Your task to perform on an android device: refresh tabs in the chrome app Image 0: 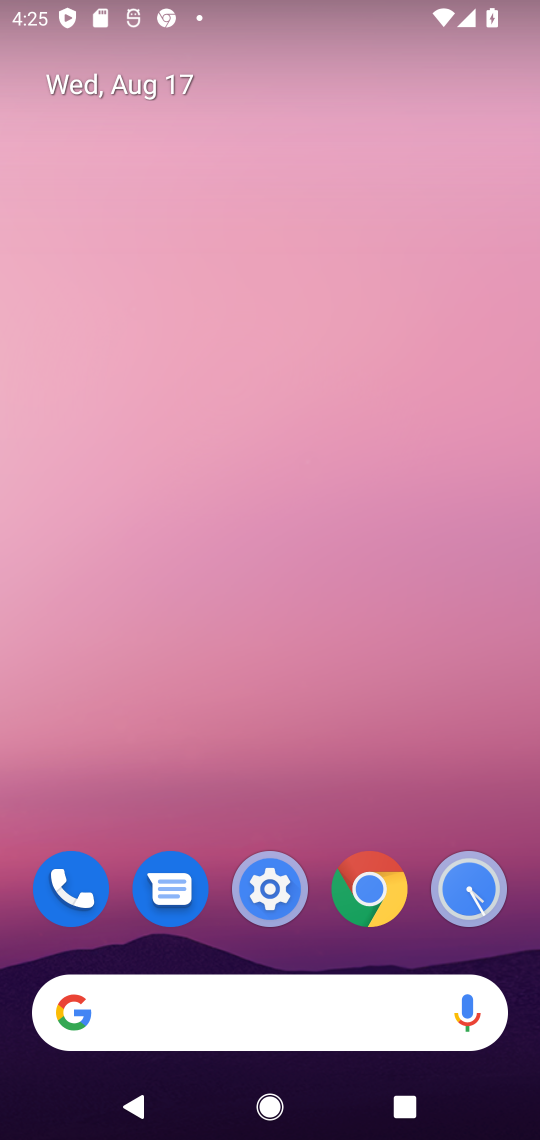
Step 0: click (376, 893)
Your task to perform on an android device: refresh tabs in the chrome app Image 1: 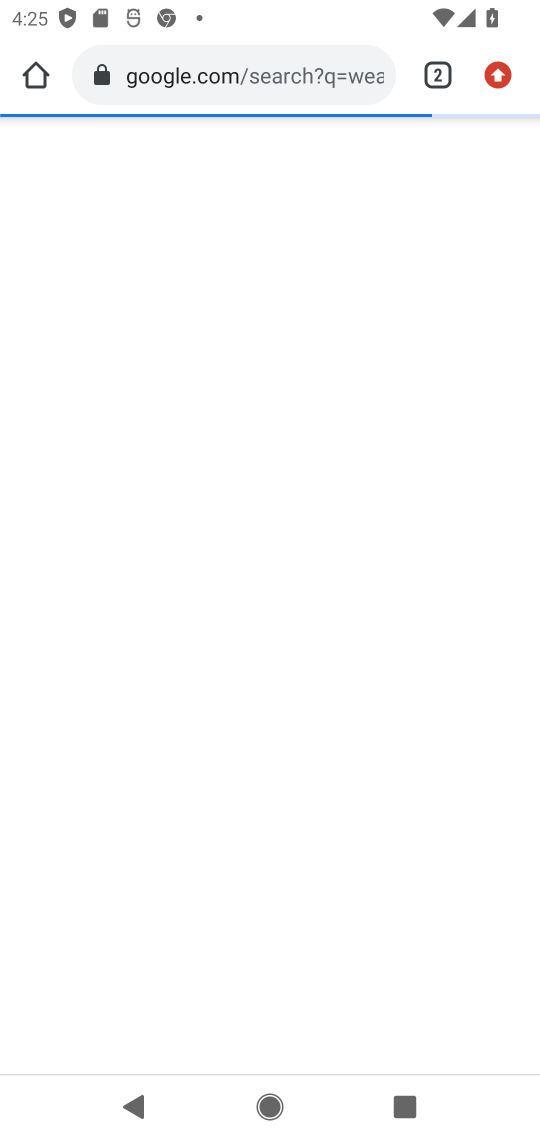
Step 1: click (490, 74)
Your task to perform on an android device: refresh tabs in the chrome app Image 2: 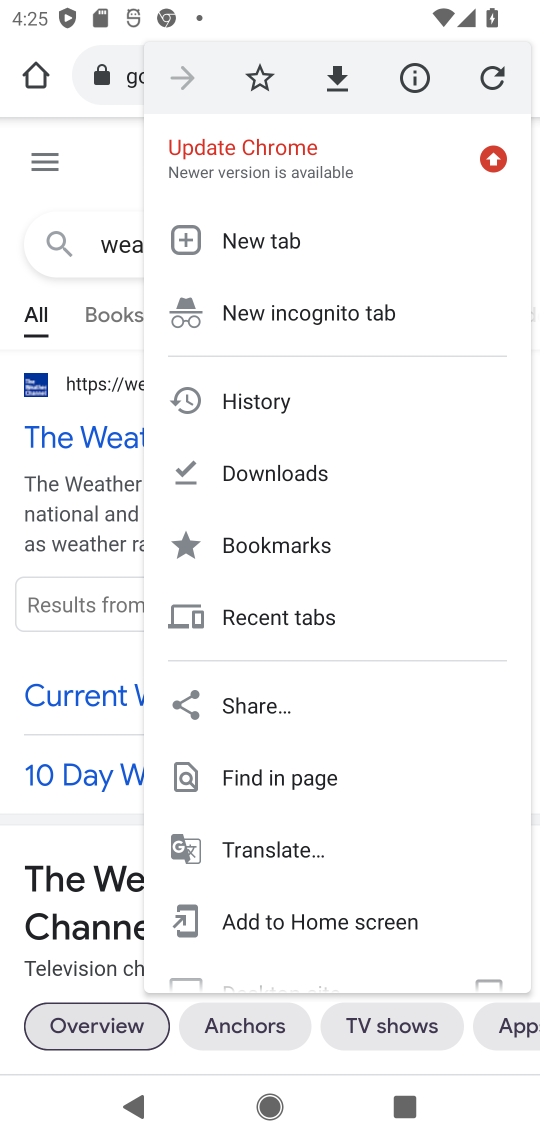
Step 2: click (489, 70)
Your task to perform on an android device: refresh tabs in the chrome app Image 3: 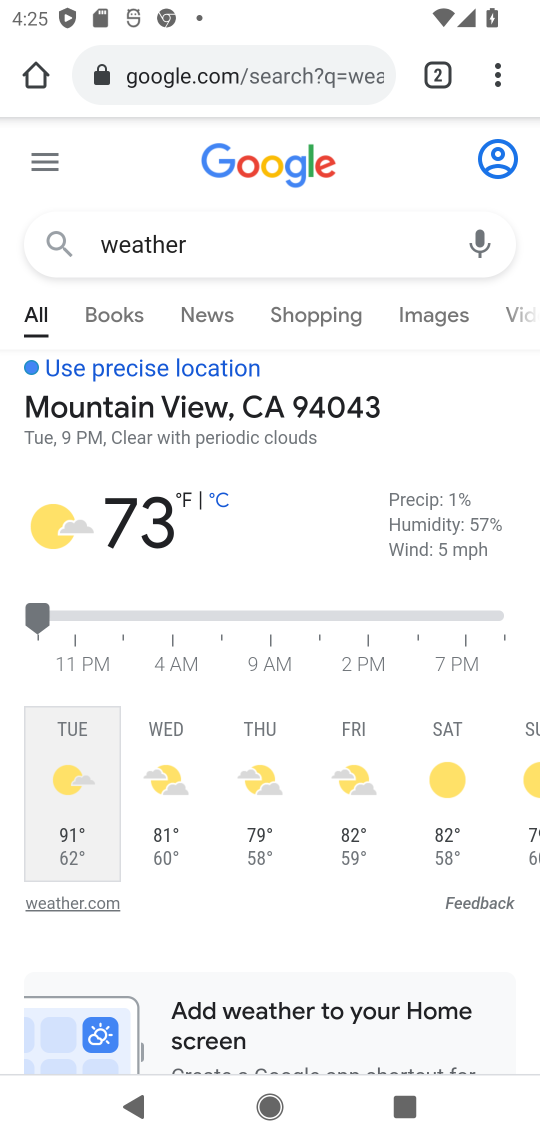
Step 3: task complete